Your task to perform on an android device: Clear the cart on bestbuy. Image 0: 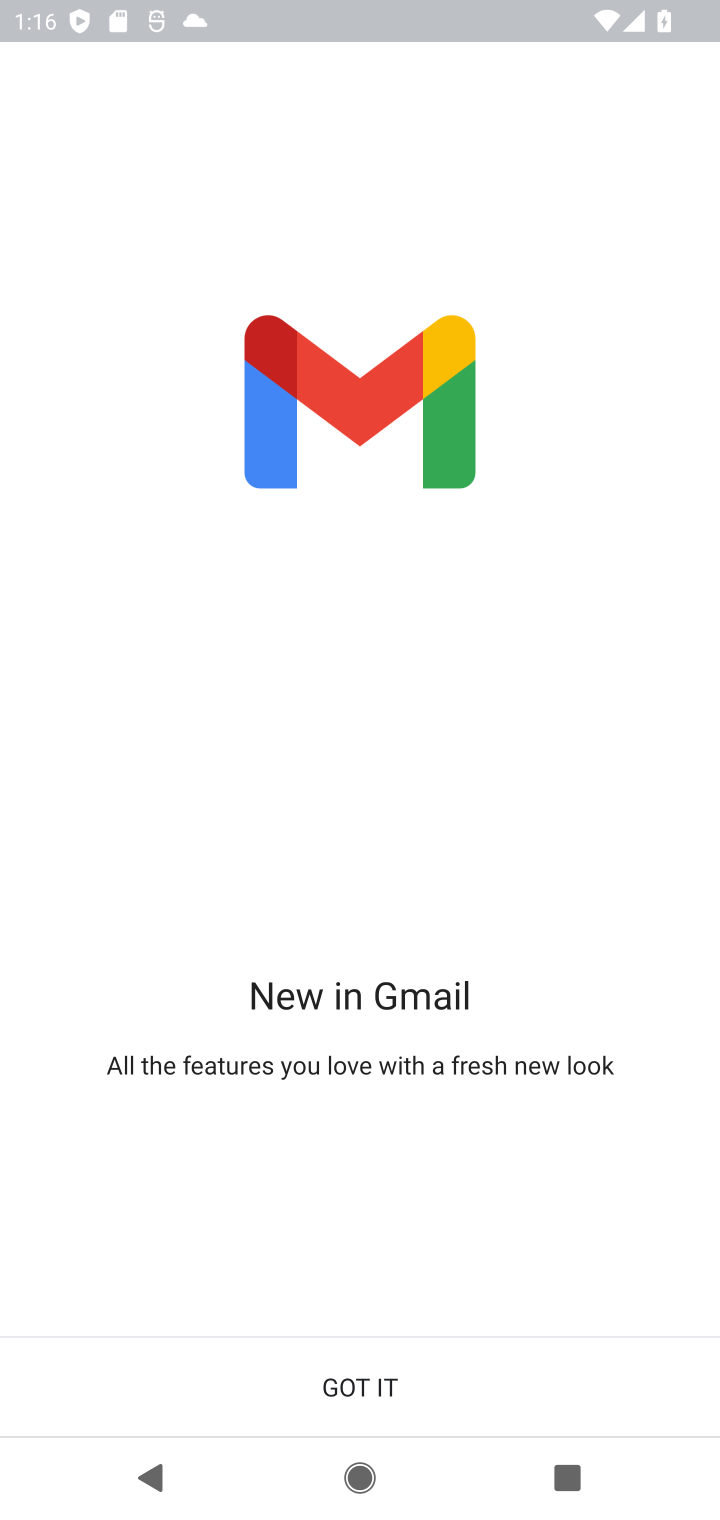
Step 0: press home button
Your task to perform on an android device: Clear the cart on bestbuy. Image 1: 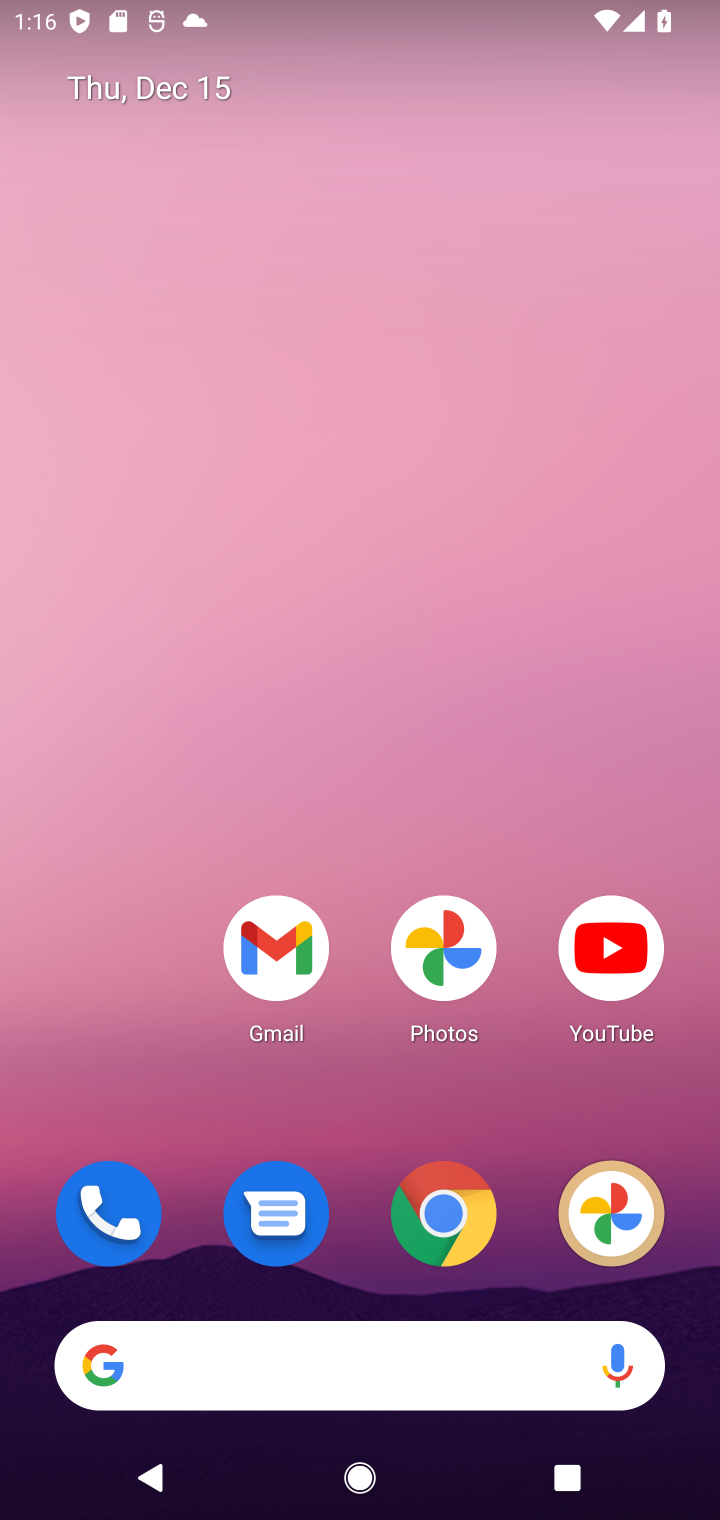
Step 1: click (425, 1225)
Your task to perform on an android device: Clear the cart on bestbuy. Image 2: 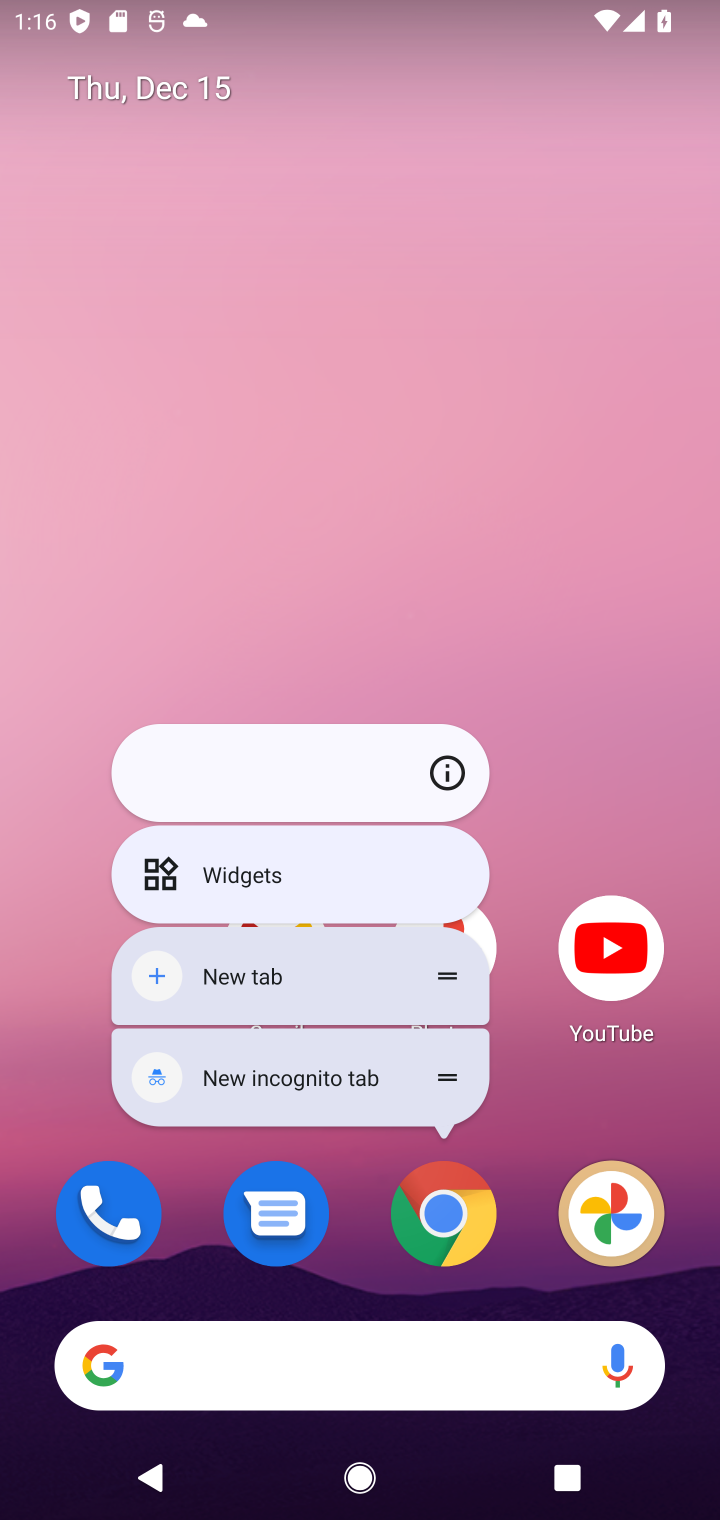
Step 2: click (334, 1347)
Your task to perform on an android device: Clear the cart on bestbuy. Image 3: 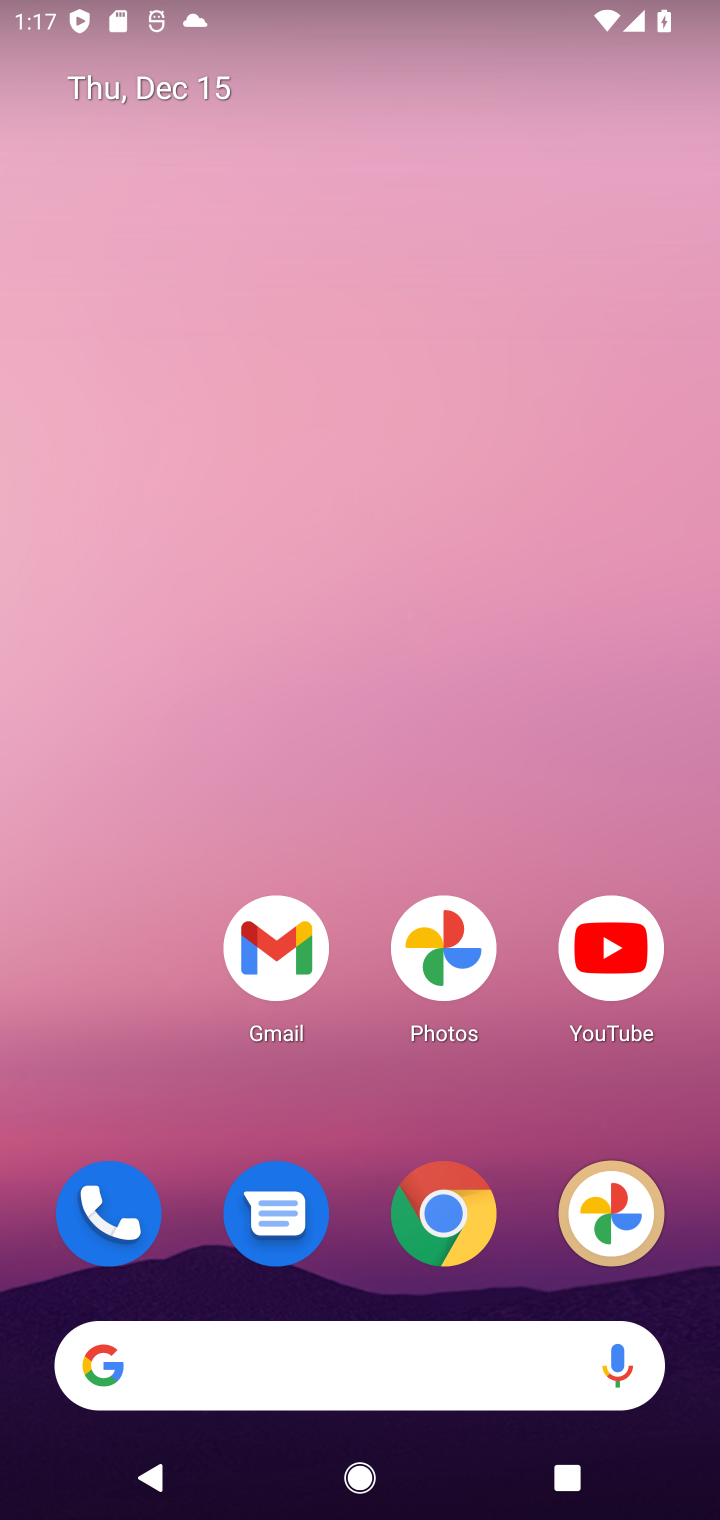
Step 3: click (336, 1339)
Your task to perform on an android device: Clear the cart on bestbuy. Image 4: 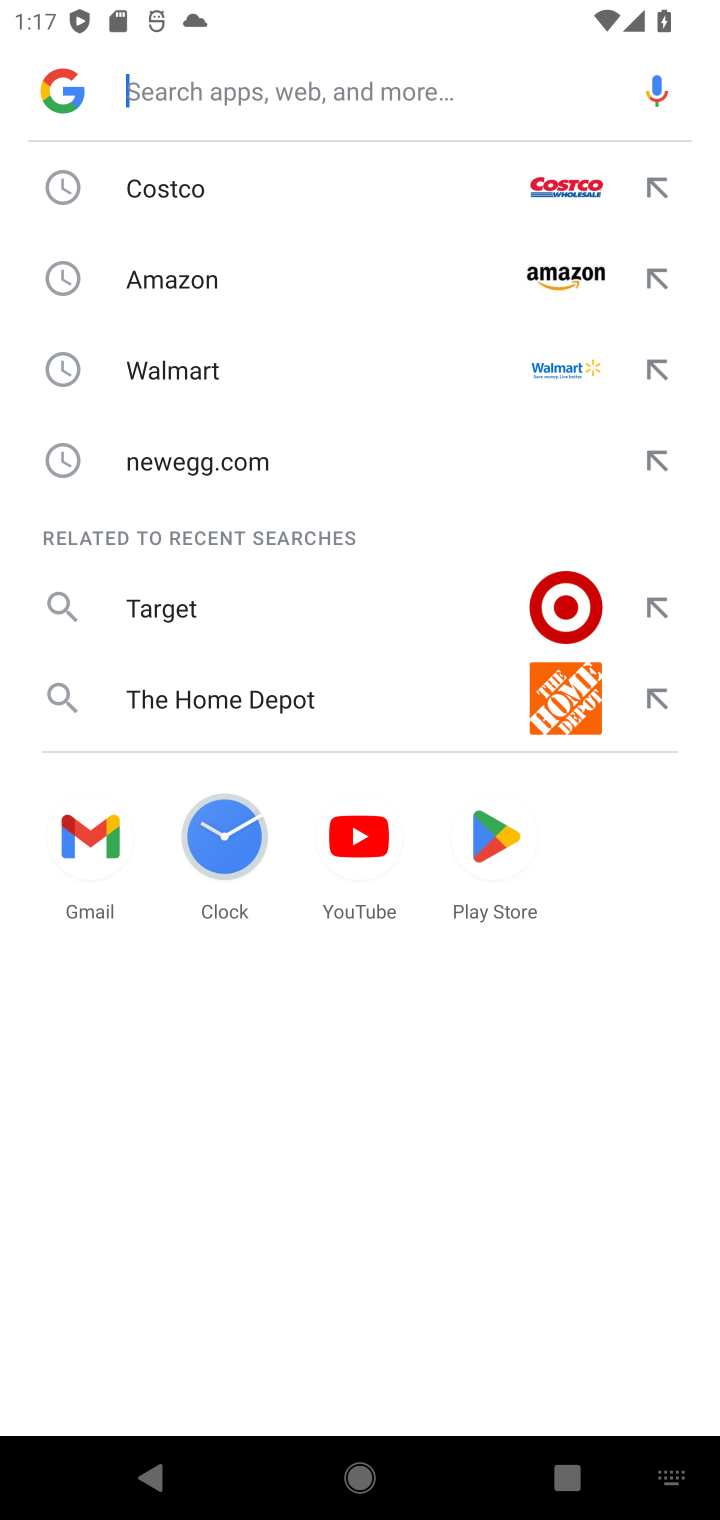
Step 4: type "bestbuy"
Your task to perform on an android device: Clear the cart on bestbuy. Image 5: 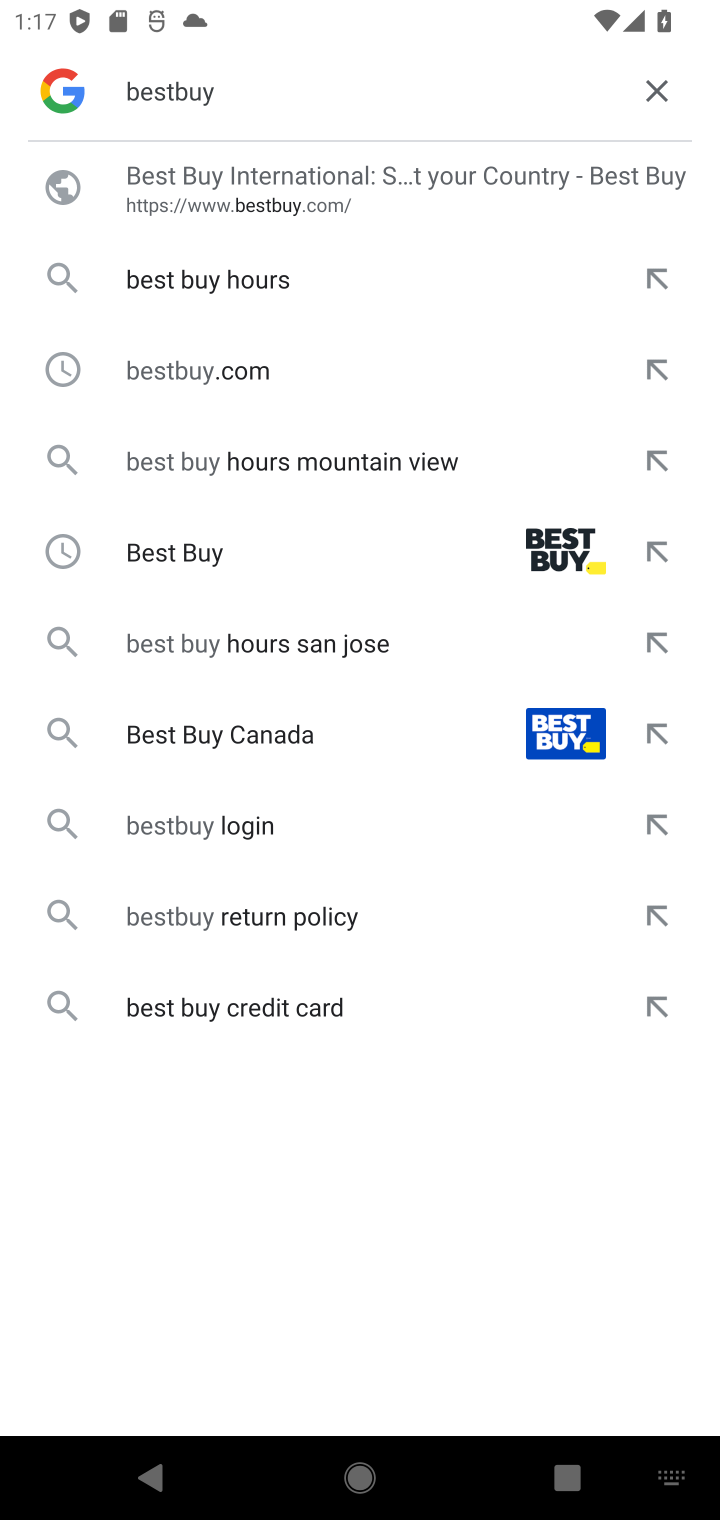
Step 5: click (345, 226)
Your task to perform on an android device: Clear the cart on bestbuy. Image 6: 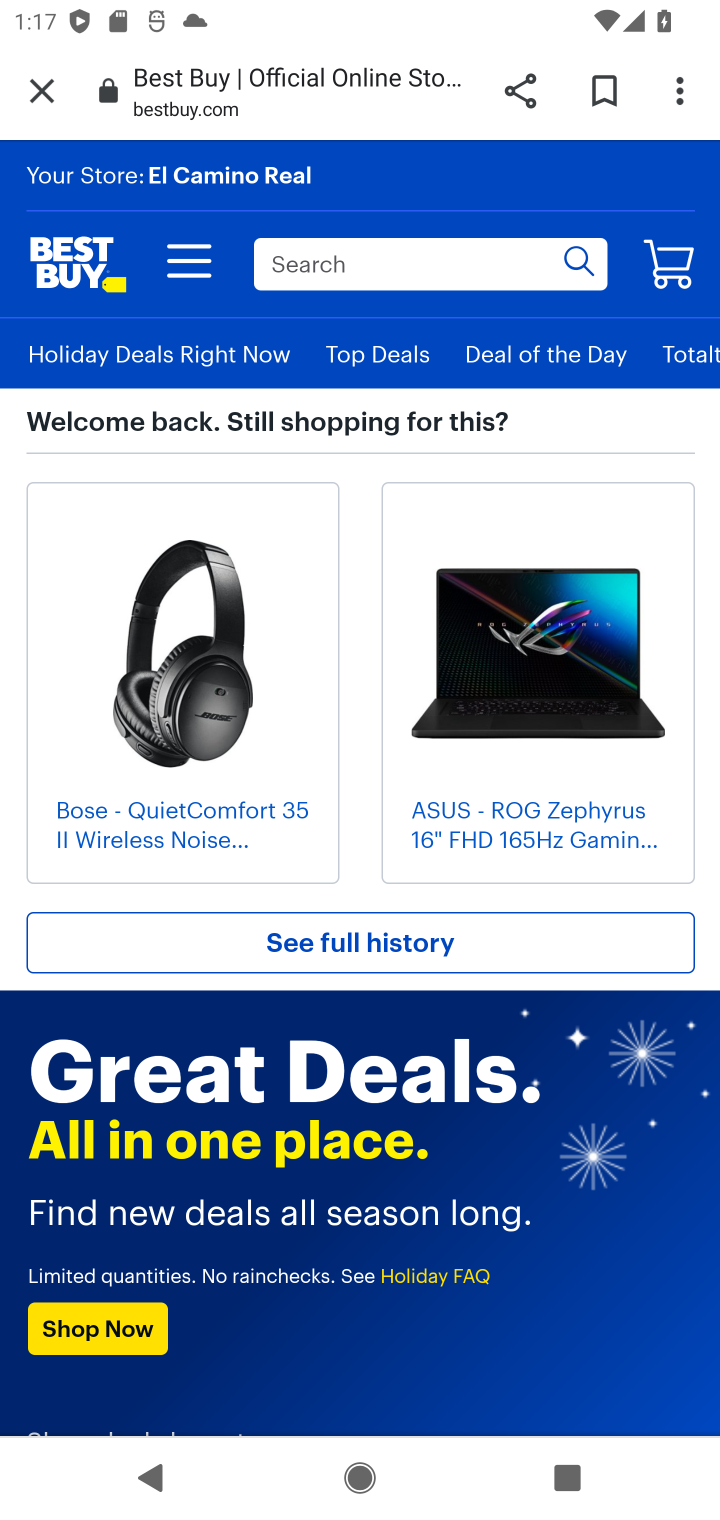
Step 6: click (422, 280)
Your task to perform on an android device: Clear the cart on bestbuy. Image 7: 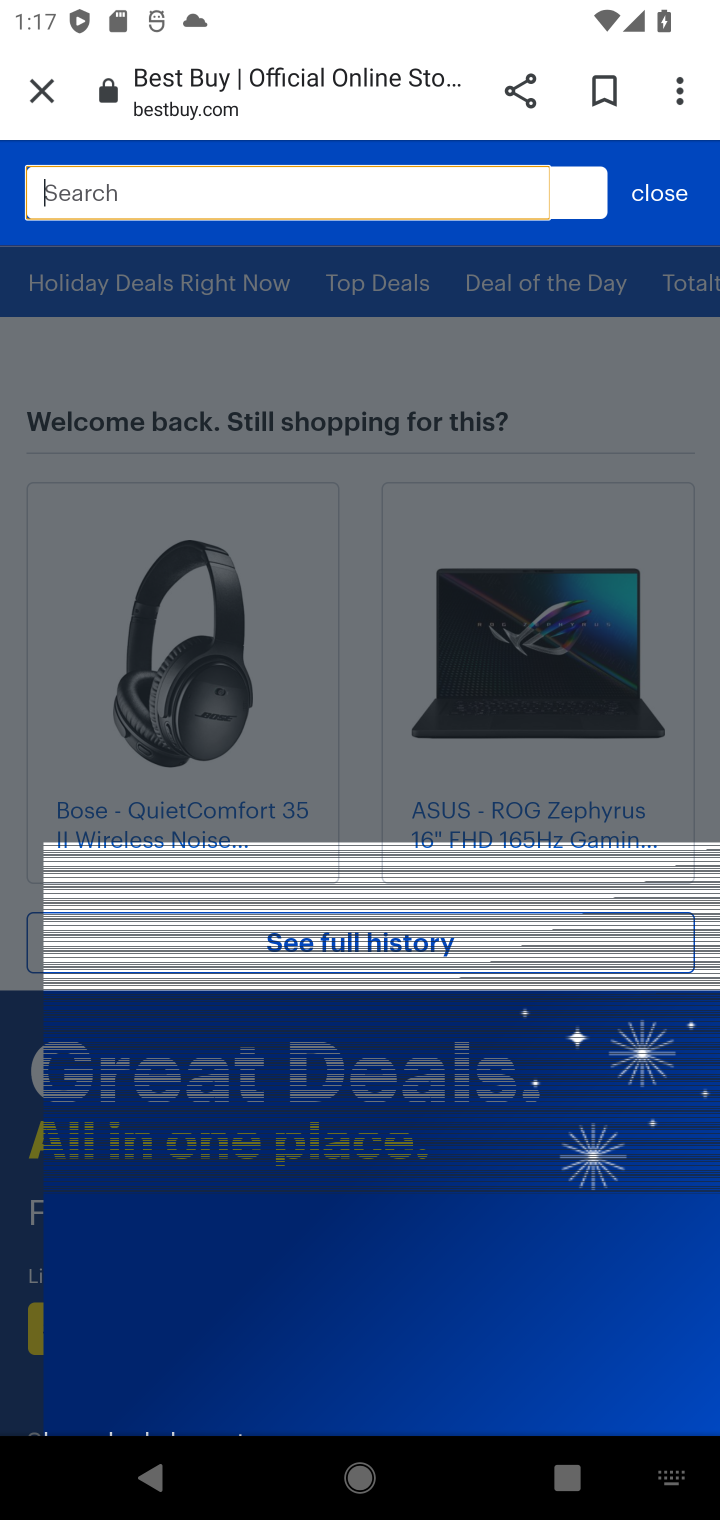
Step 7: click (633, 188)
Your task to perform on an android device: Clear the cart on bestbuy. Image 8: 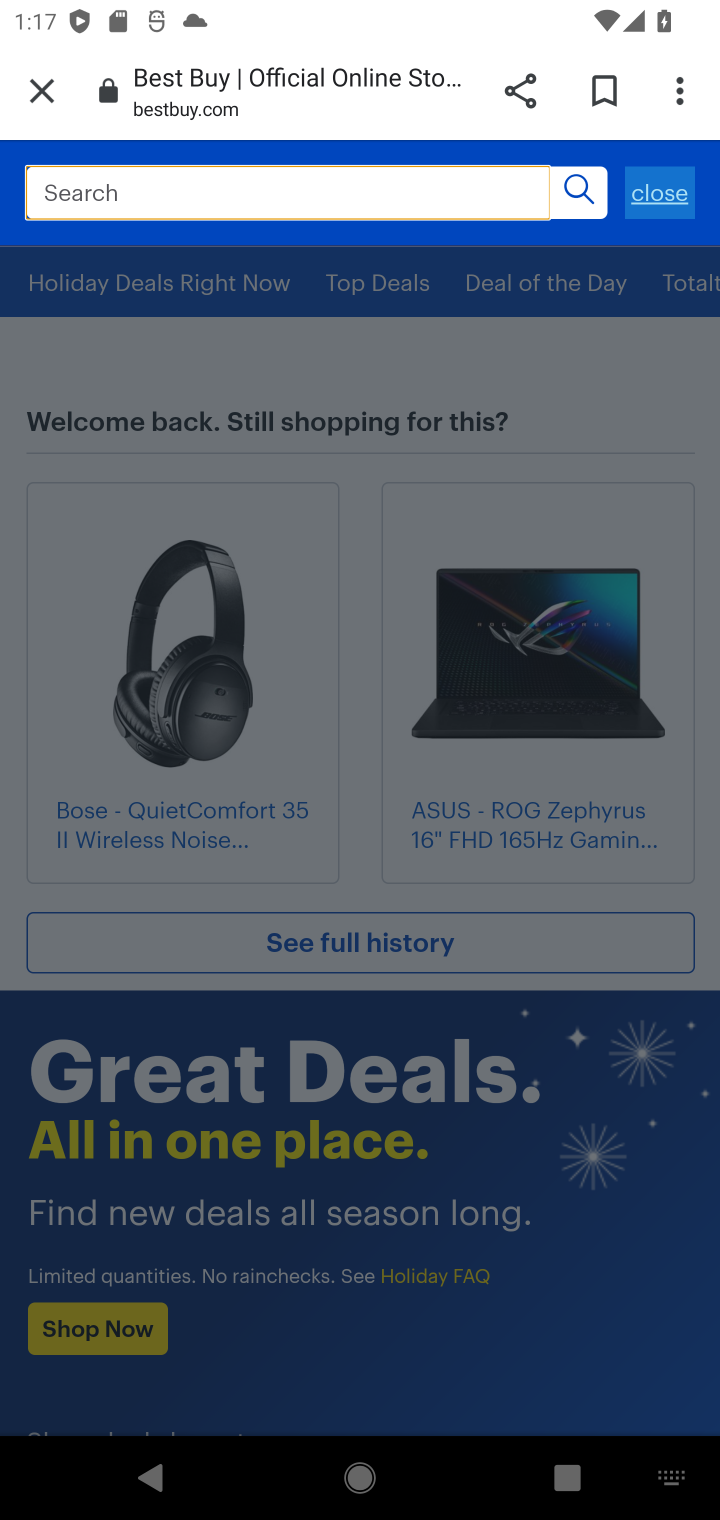
Step 8: click (633, 188)
Your task to perform on an android device: Clear the cart on bestbuy. Image 9: 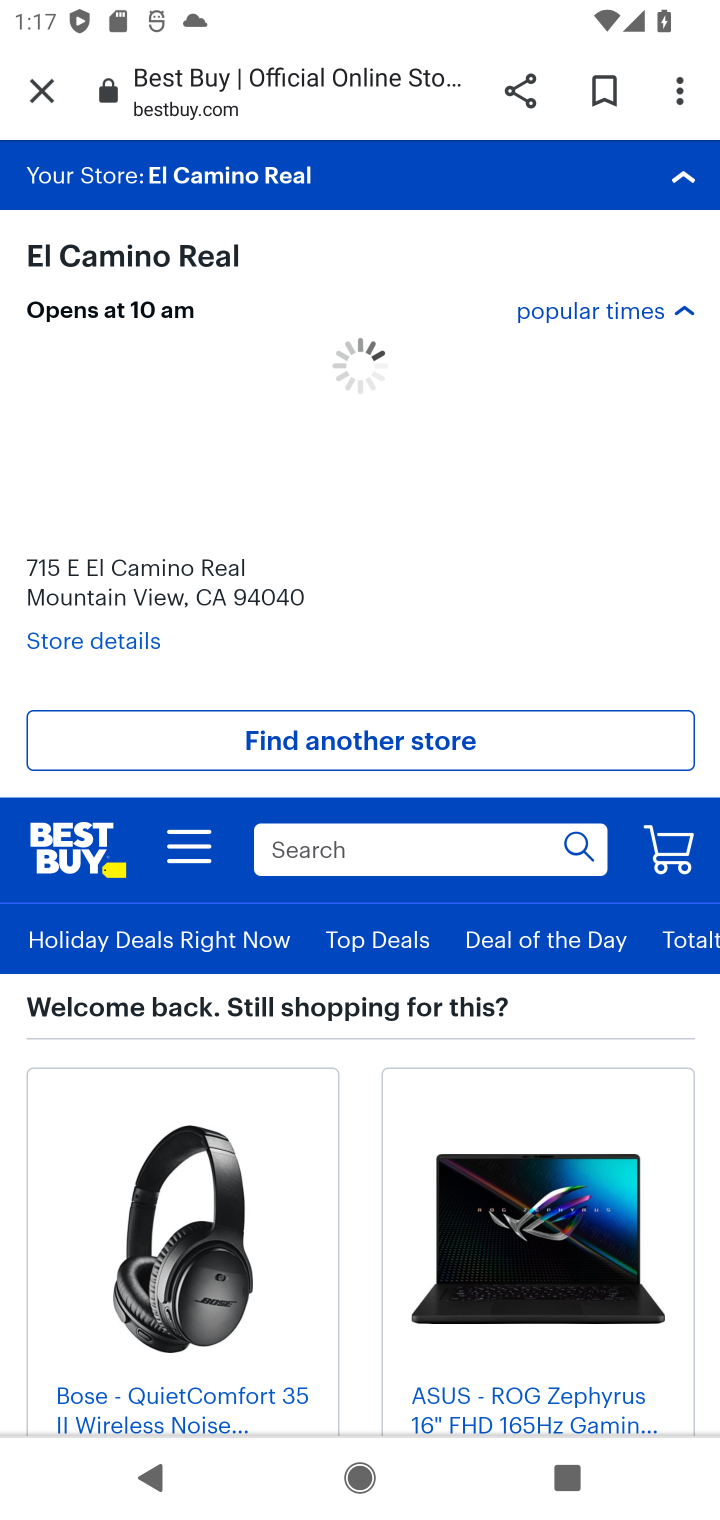
Step 9: click (696, 184)
Your task to perform on an android device: Clear the cart on bestbuy. Image 10: 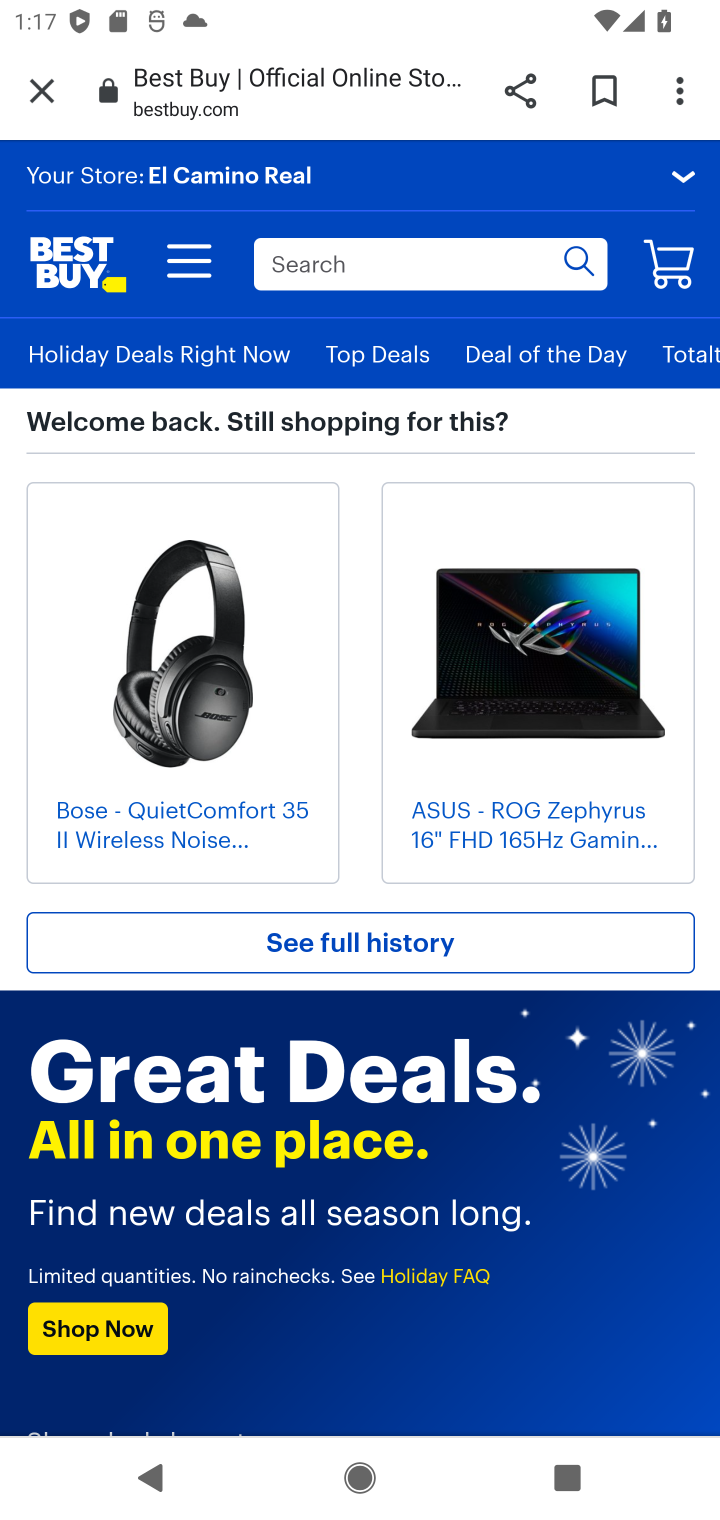
Step 10: click (690, 253)
Your task to perform on an android device: Clear the cart on bestbuy. Image 11: 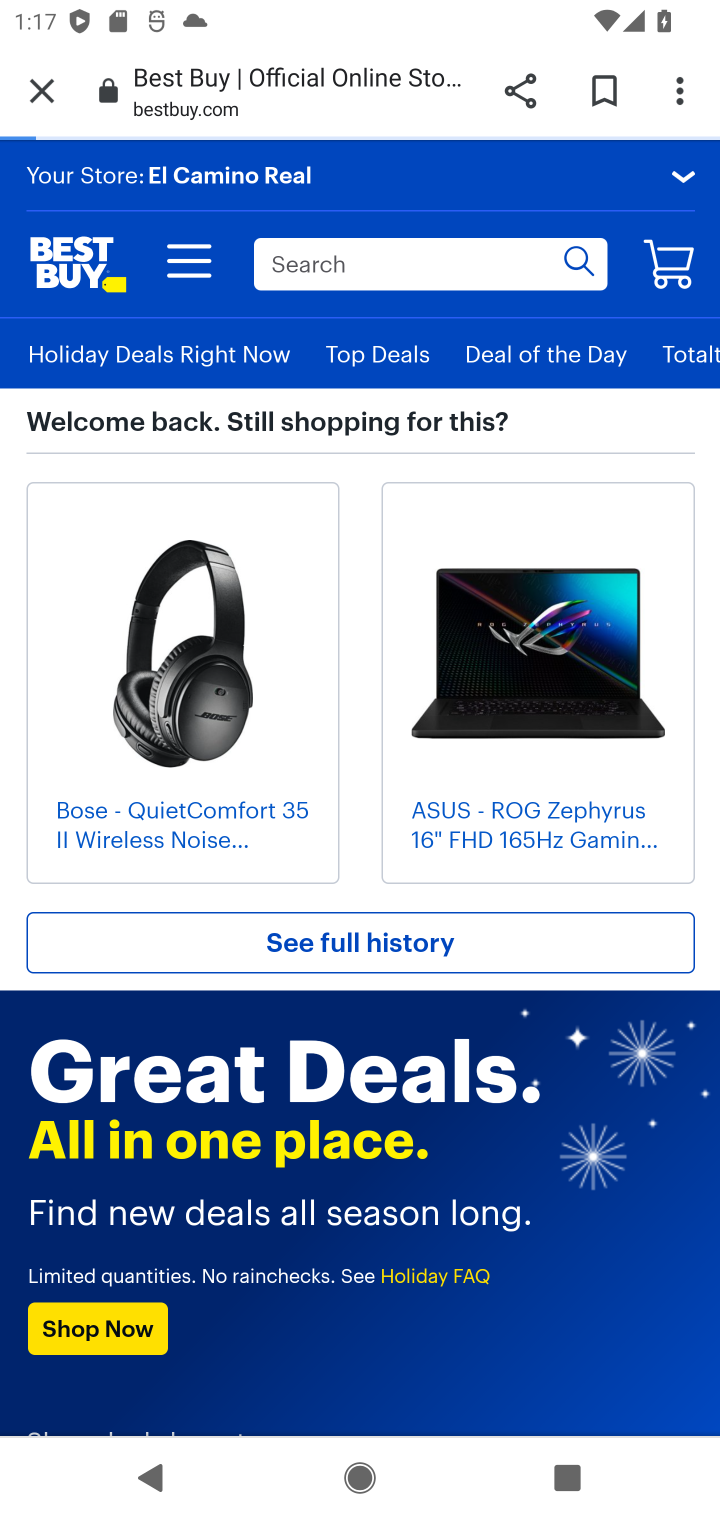
Step 11: task complete